Your task to perform on an android device: Go to sound settings Image 0: 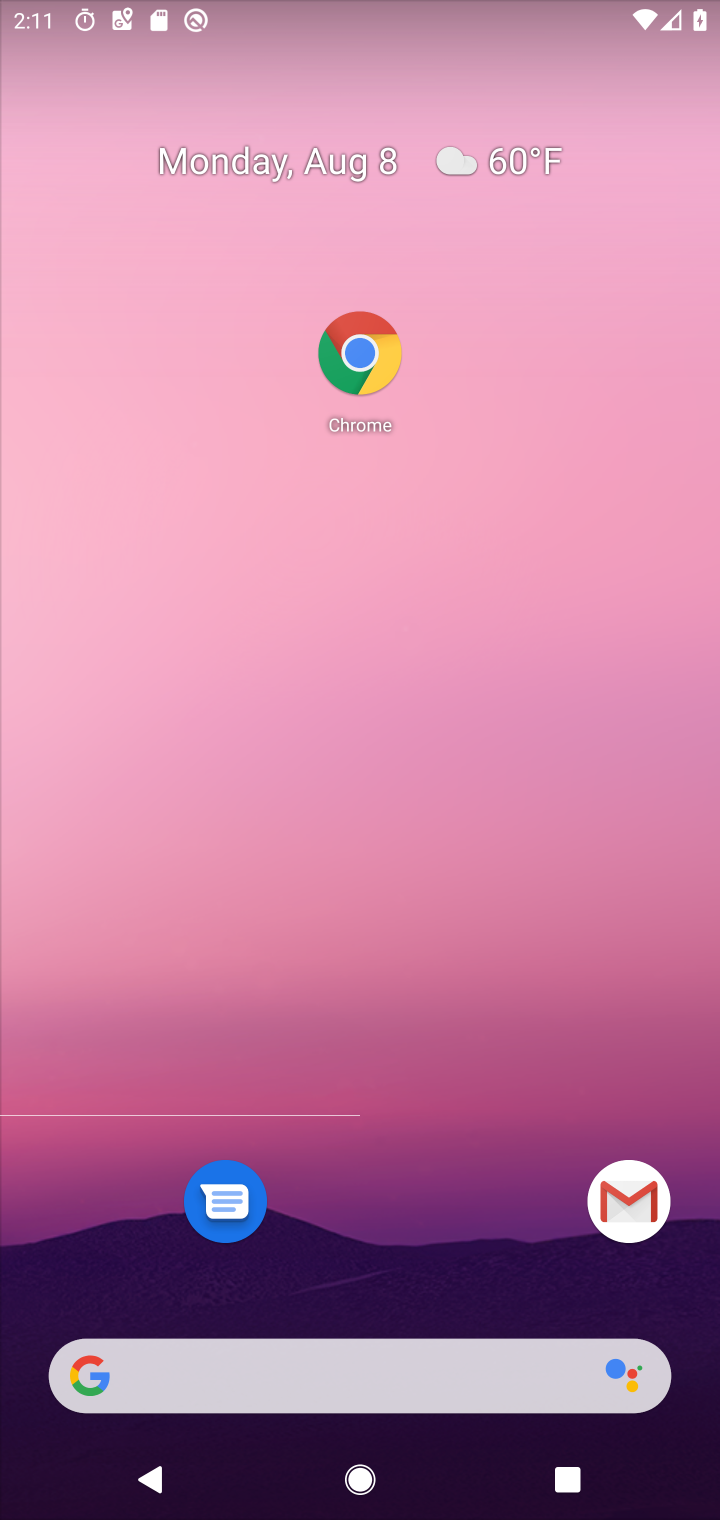
Step 0: press home button
Your task to perform on an android device: Go to sound settings Image 1: 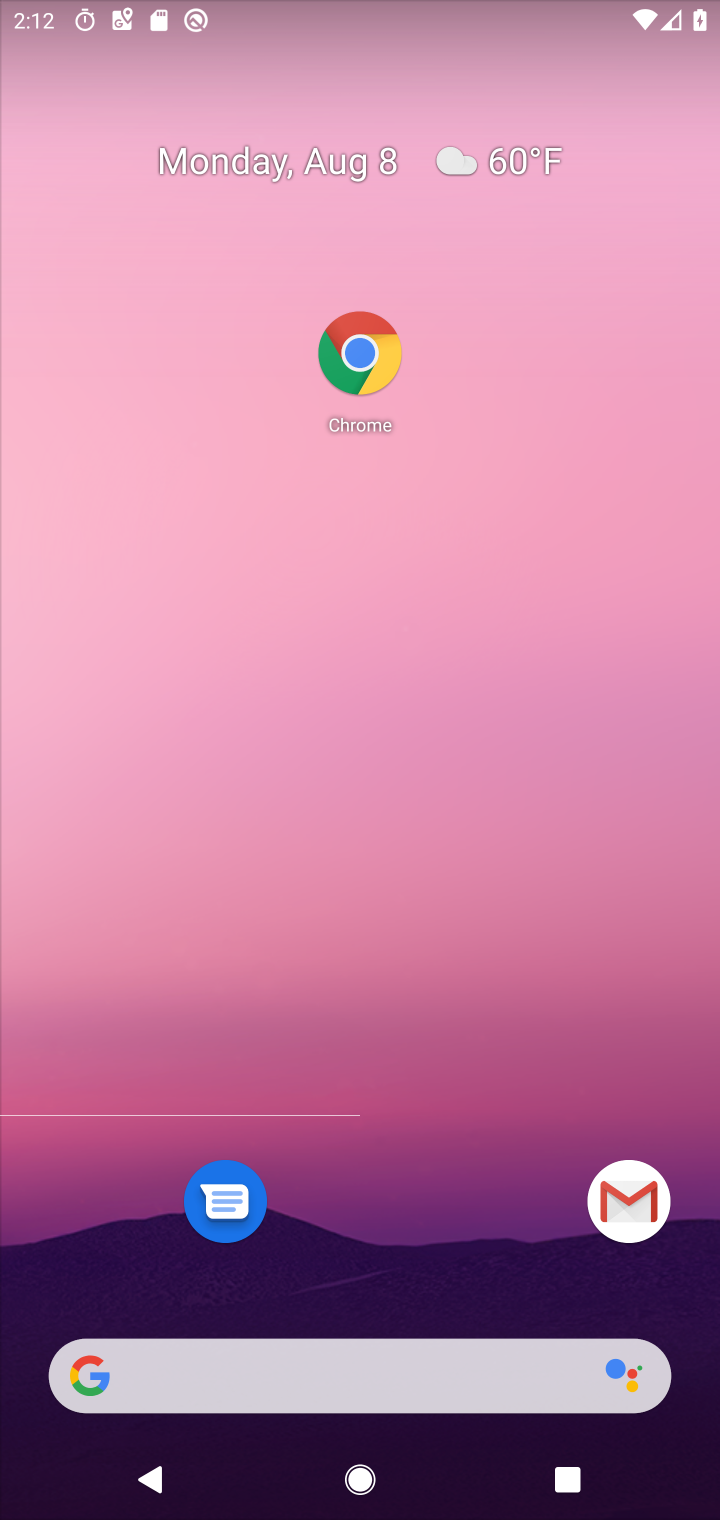
Step 1: drag from (440, 1408) to (435, 775)
Your task to perform on an android device: Go to sound settings Image 2: 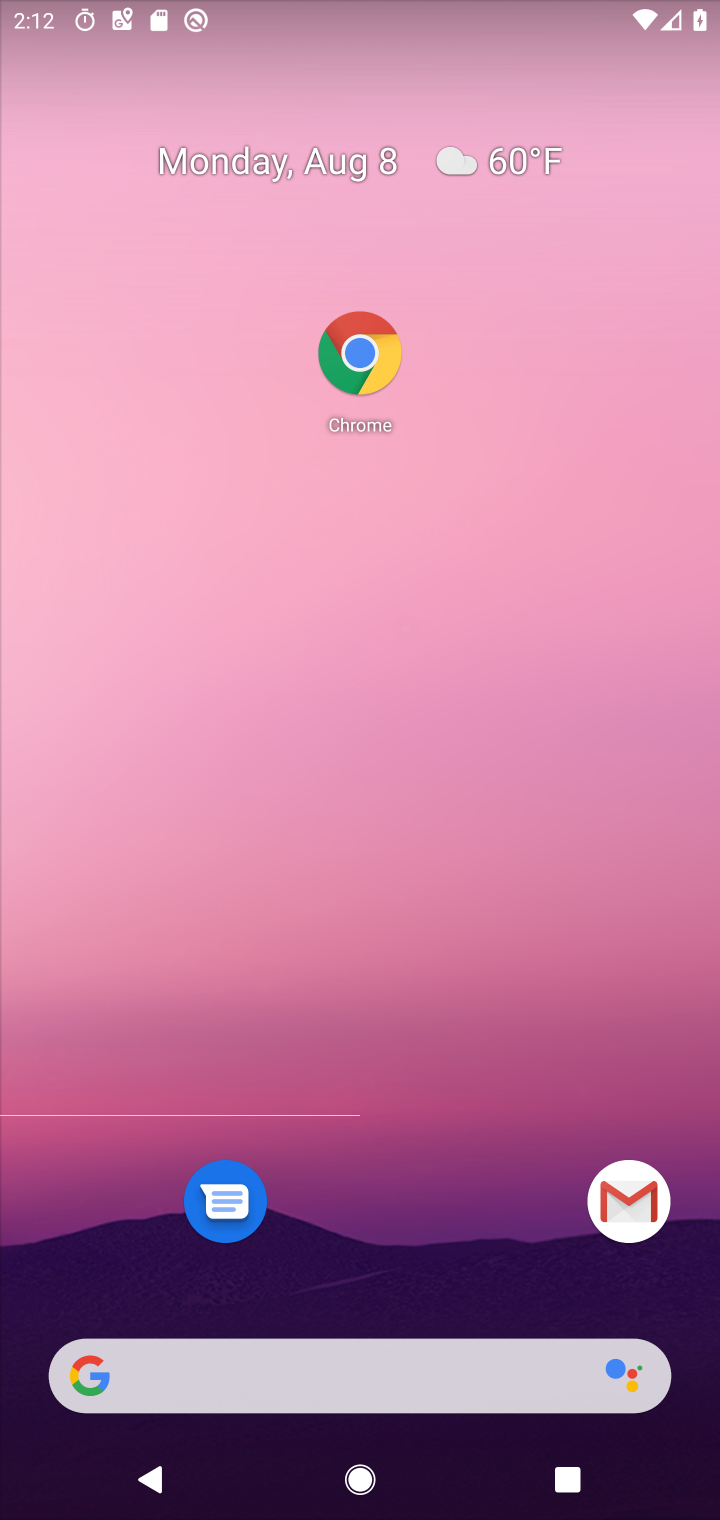
Step 2: drag from (476, 1190) to (444, 297)
Your task to perform on an android device: Go to sound settings Image 3: 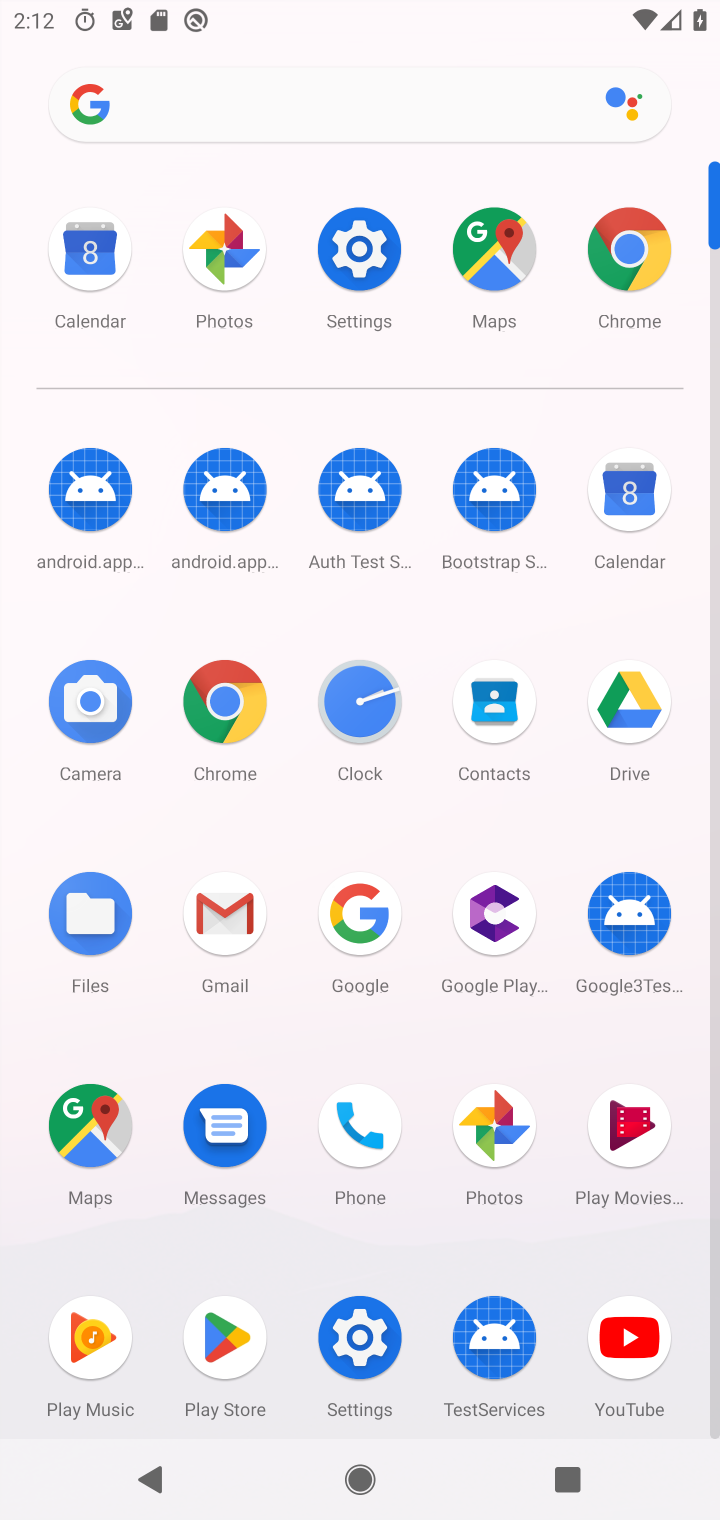
Step 3: click (372, 240)
Your task to perform on an android device: Go to sound settings Image 4: 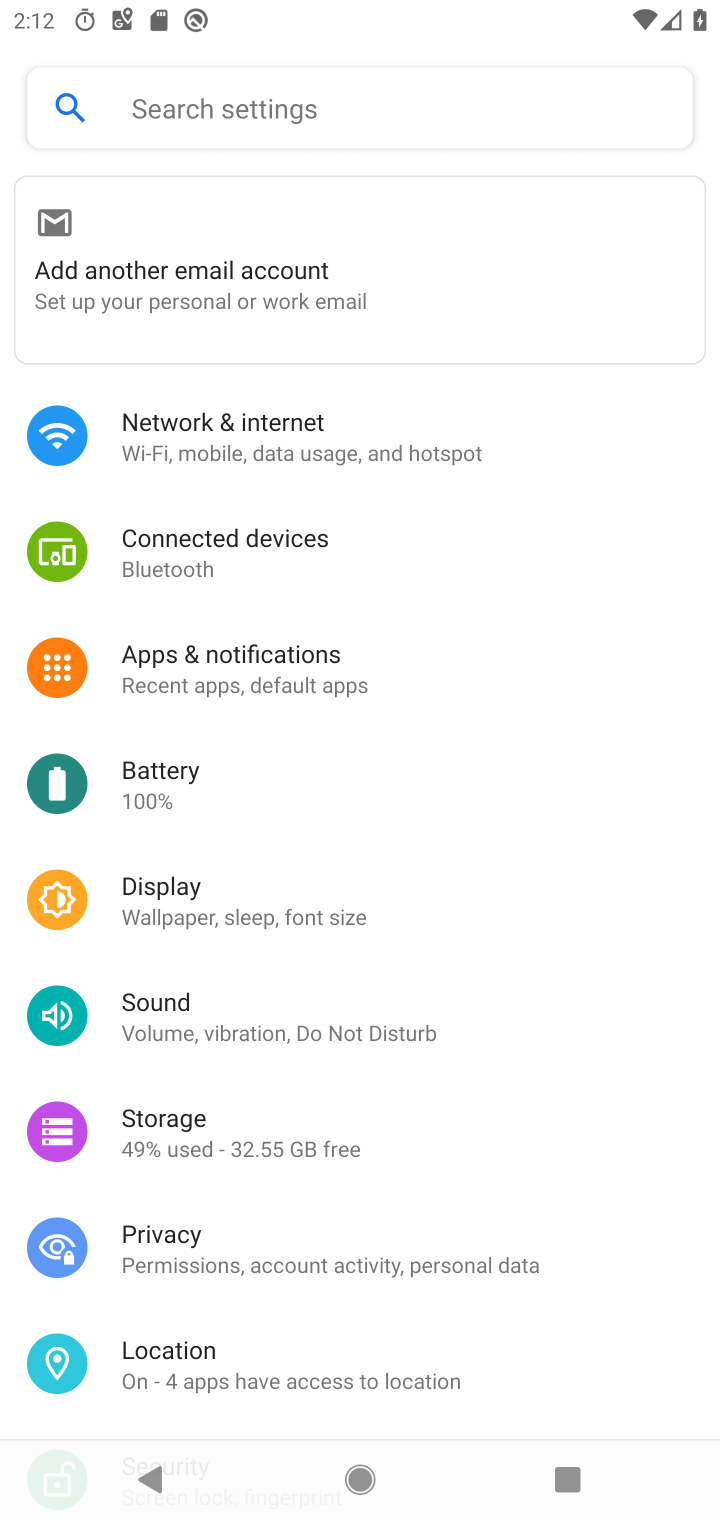
Step 4: click (191, 1034)
Your task to perform on an android device: Go to sound settings Image 5: 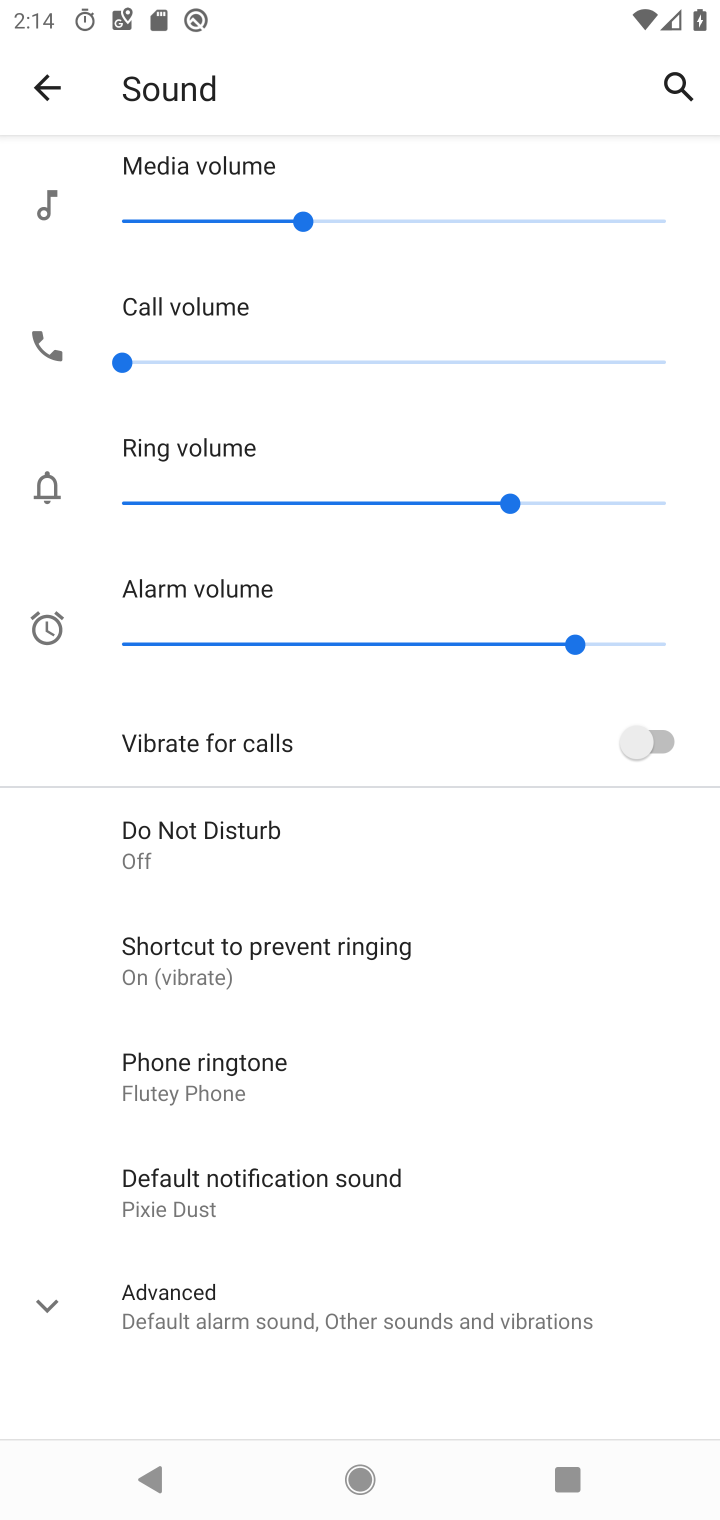
Step 5: task complete